Your task to perform on an android device: turn on javascript in the chrome app Image 0: 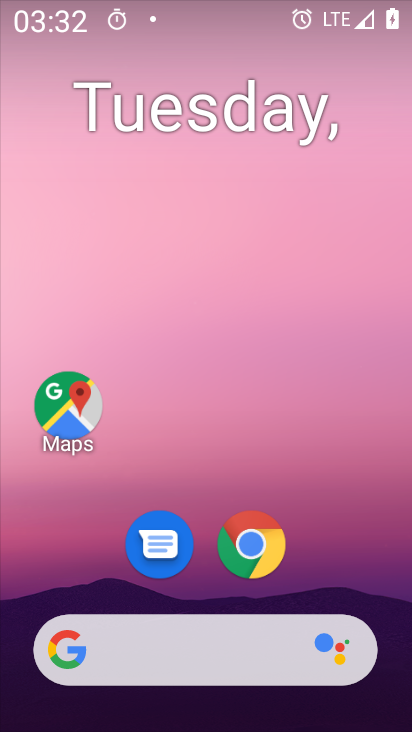
Step 0: drag from (346, 548) to (251, 67)
Your task to perform on an android device: turn on javascript in the chrome app Image 1: 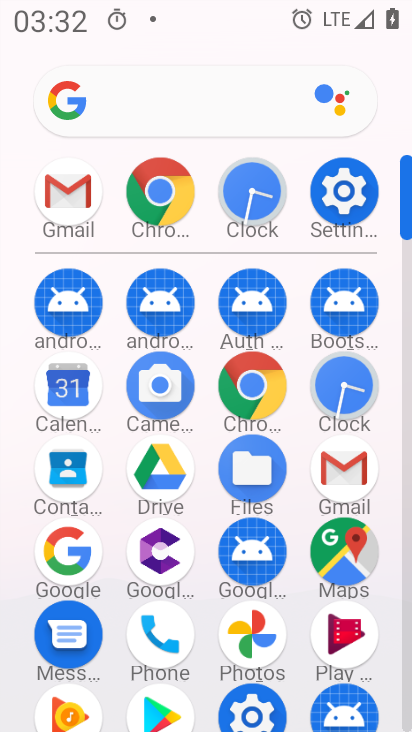
Step 1: drag from (107, 448) to (106, 189)
Your task to perform on an android device: turn on javascript in the chrome app Image 2: 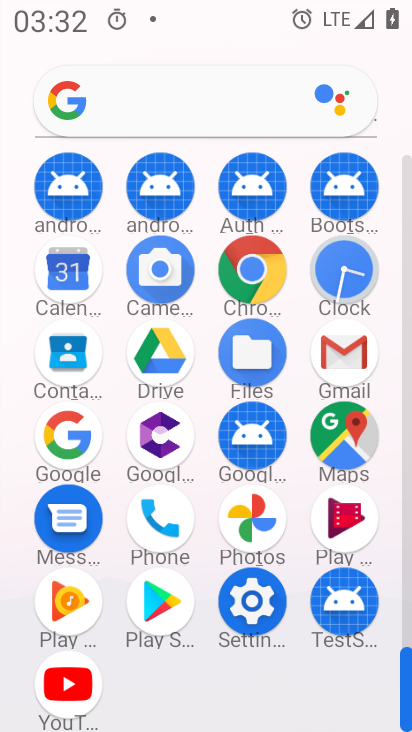
Step 2: click (245, 266)
Your task to perform on an android device: turn on javascript in the chrome app Image 3: 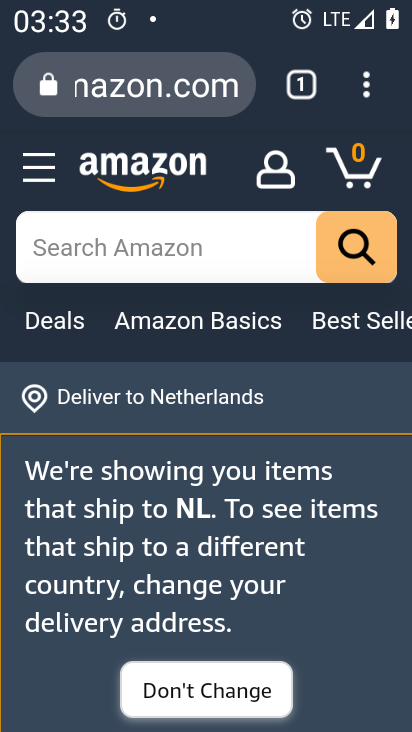
Step 3: drag from (365, 89) to (188, 603)
Your task to perform on an android device: turn on javascript in the chrome app Image 4: 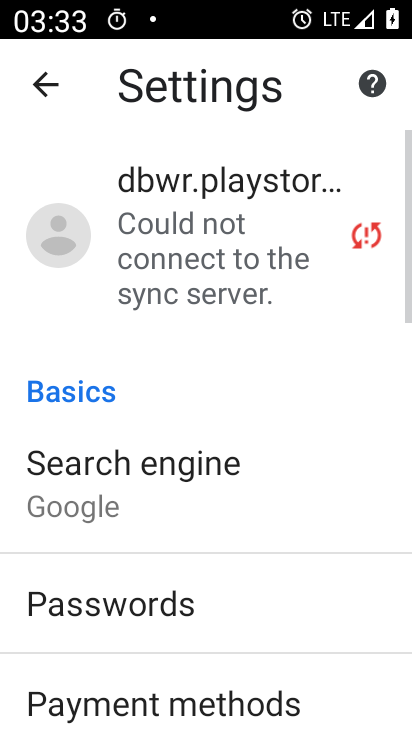
Step 4: drag from (273, 560) to (273, 218)
Your task to perform on an android device: turn on javascript in the chrome app Image 5: 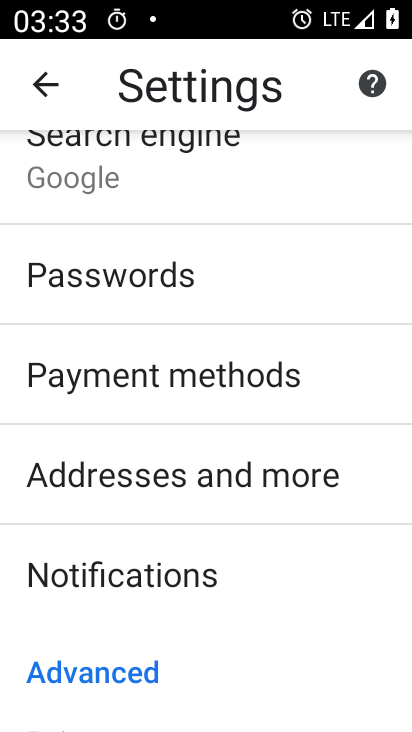
Step 5: drag from (253, 603) to (251, 192)
Your task to perform on an android device: turn on javascript in the chrome app Image 6: 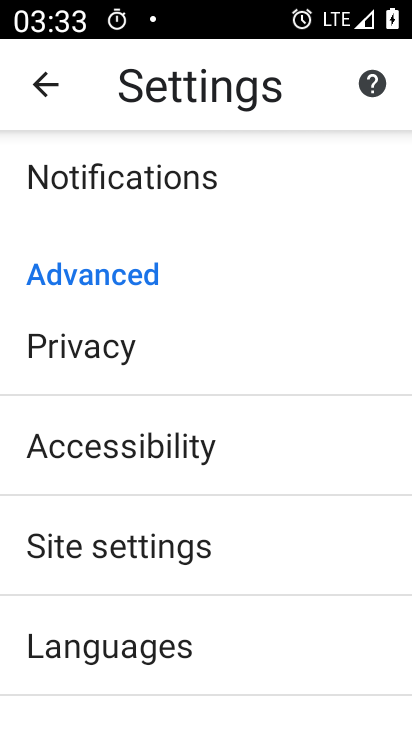
Step 6: drag from (224, 601) to (216, 262)
Your task to perform on an android device: turn on javascript in the chrome app Image 7: 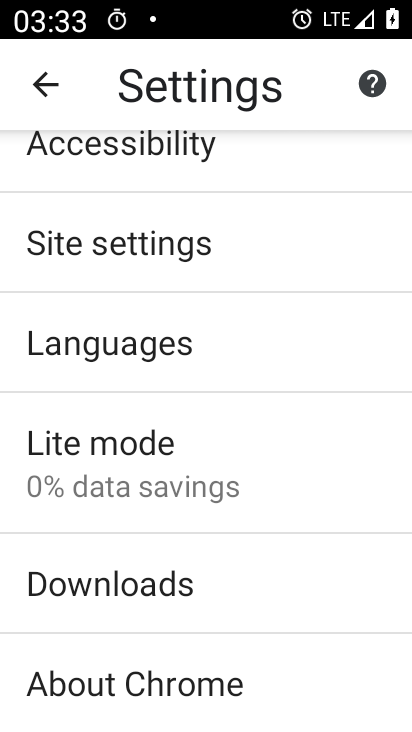
Step 7: click (195, 259)
Your task to perform on an android device: turn on javascript in the chrome app Image 8: 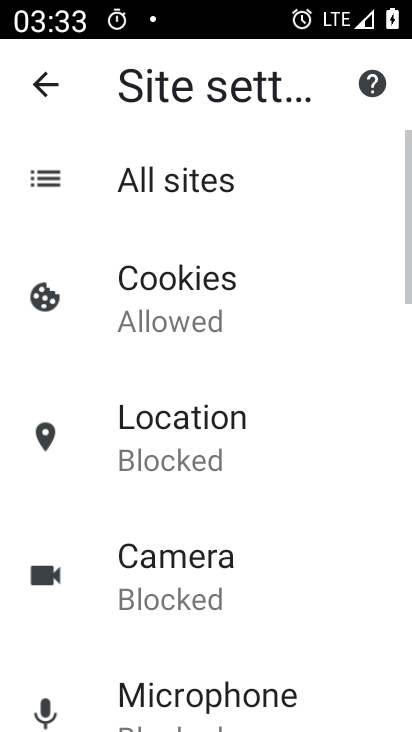
Step 8: drag from (268, 644) to (236, 202)
Your task to perform on an android device: turn on javascript in the chrome app Image 9: 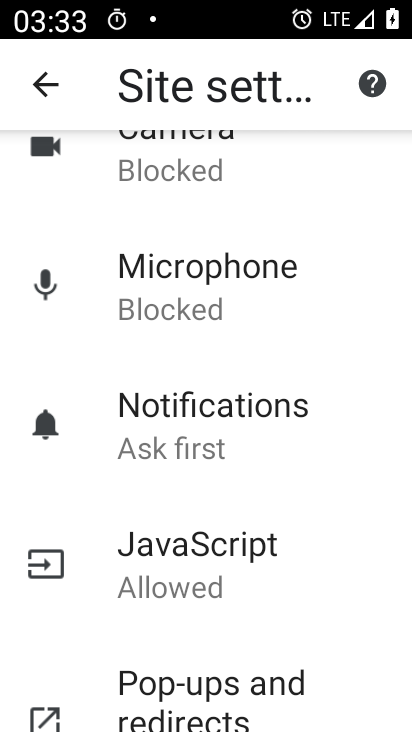
Step 9: click (209, 565)
Your task to perform on an android device: turn on javascript in the chrome app Image 10: 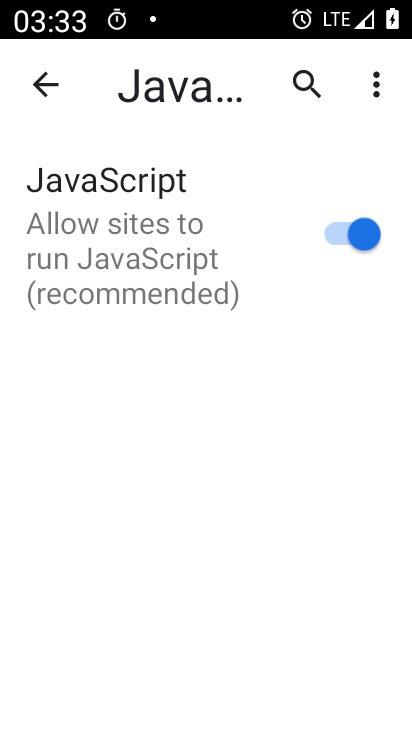
Step 10: task complete